Your task to perform on an android device: toggle wifi Image 0: 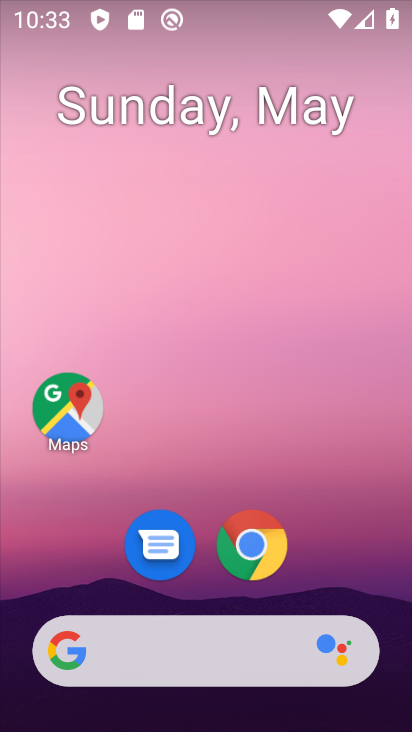
Step 0: drag from (217, 3) to (279, 494)
Your task to perform on an android device: toggle wifi Image 1: 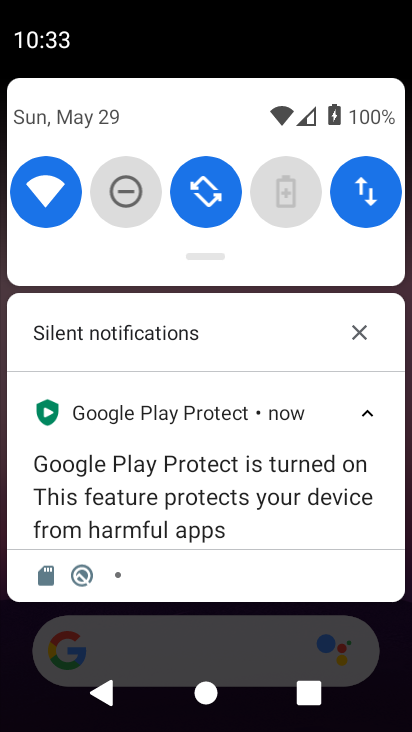
Step 1: task complete